Your task to perform on an android device: Open Google Maps and go to "Timeline" Image 0: 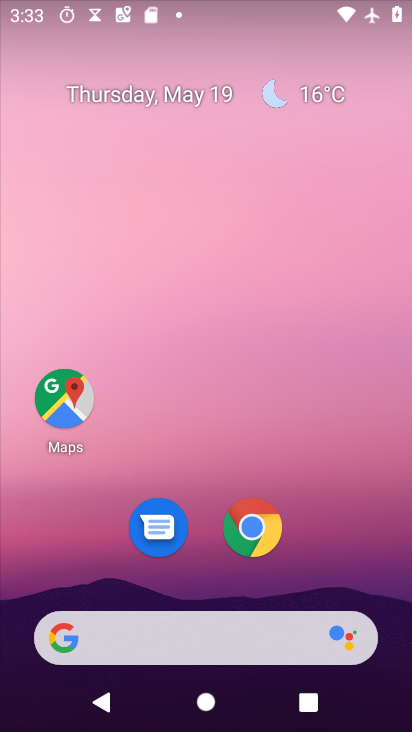
Step 0: click (56, 398)
Your task to perform on an android device: Open Google Maps and go to "Timeline" Image 1: 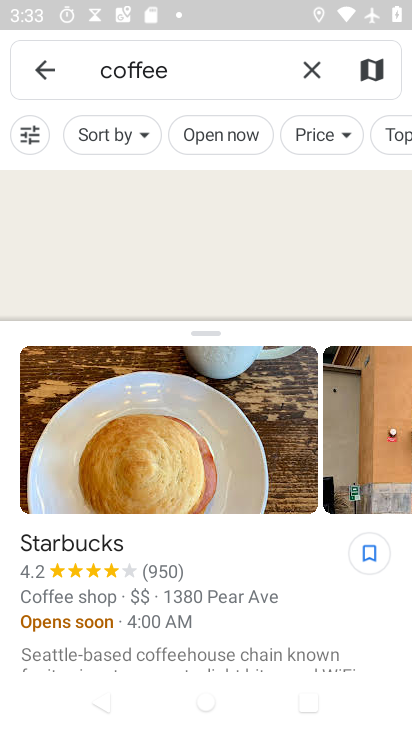
Step 1: click (316, 61)
Your task to perform on an android device: Open Google Maps and go to "Timeline" Image 2: 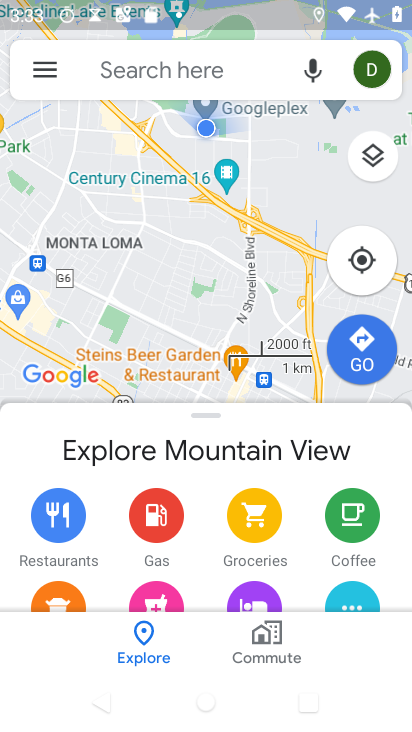
Step 2: click (38, 74)
Your task to perform on an android device: Open Google Maps and go to "Timeline" Image 3: 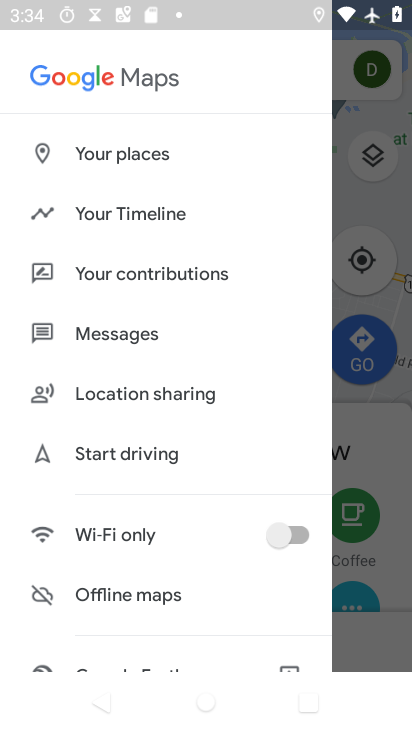
Step 3: click (148, 216)
Your task to perform on an android device: Open Google Maps and go to "Timeline" Image 4: 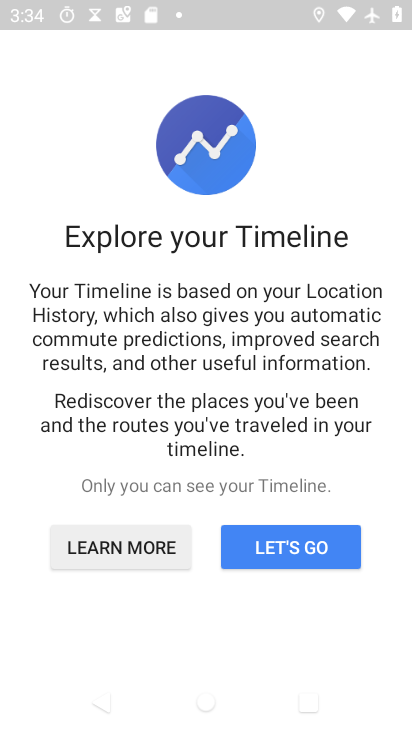
Step 4: click (289, 552)
Your task to perform on an android device: Open Google Maps and go to "Timeline" Image 5: 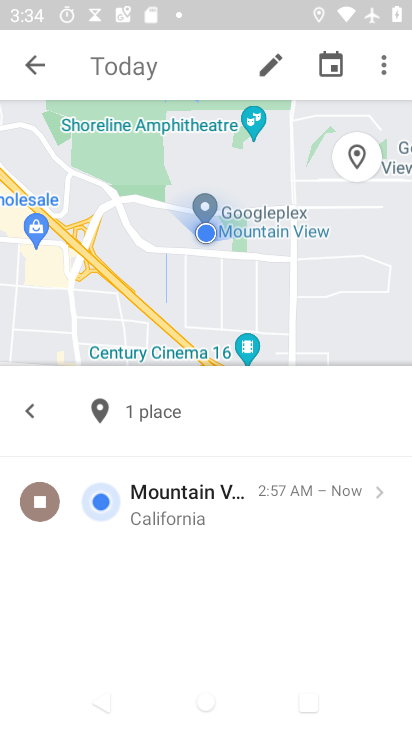
Step 5: task complete